Your task to perform on an android device: Go to wifi settings Image 0: 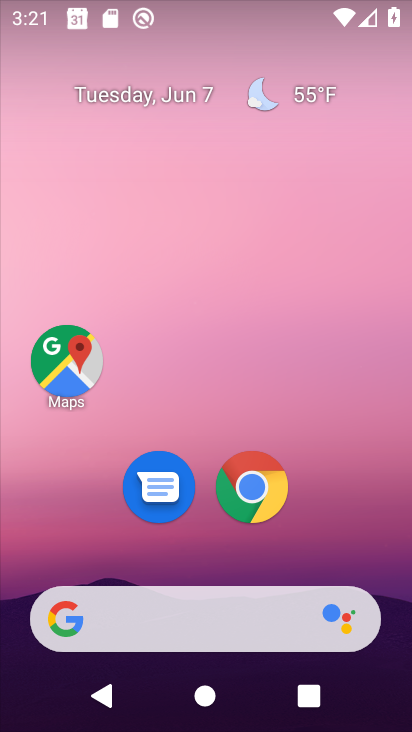
Step 0: drag from (335, 527) to (313, 64)
Your task to perform on an android device: Go to wifi settings Image 1: 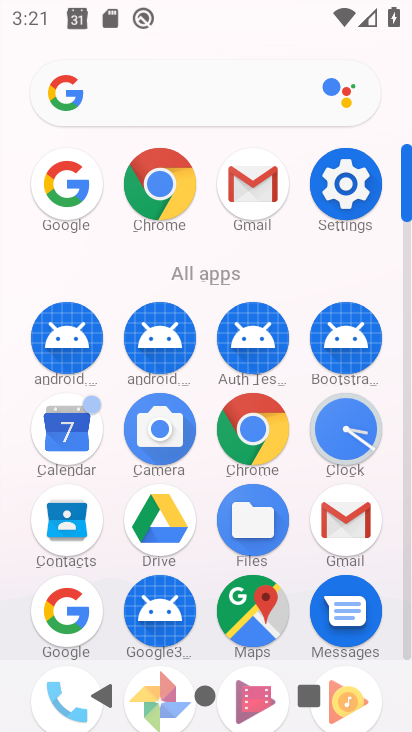
Step 1: click (344, 180)
Your task to perform on an android device: Go to wifi settings Image 2: 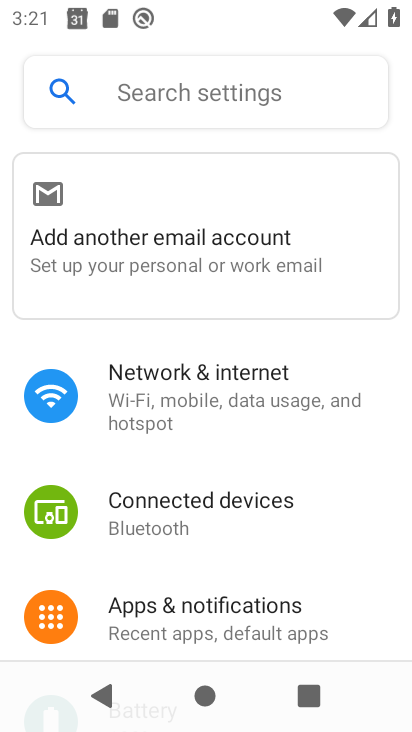
Step 2: drag from (196, 302) to (220, 353)
Your task to perform on an android device: Go to wifi settings Image 3: 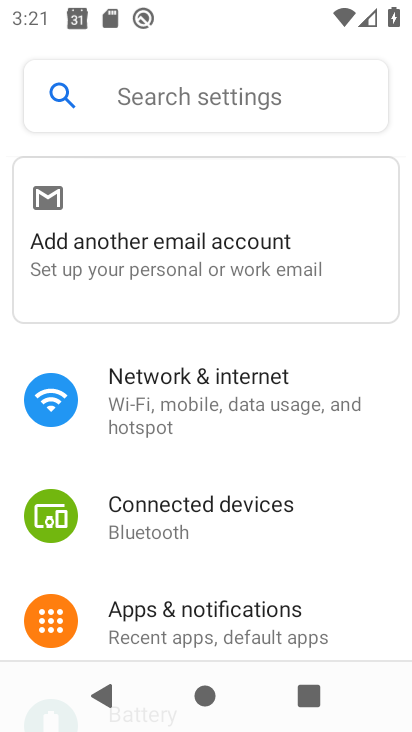
Step 3: click (229, 395)
Your task to perform on an android device: Go to wifi settings Image 4: 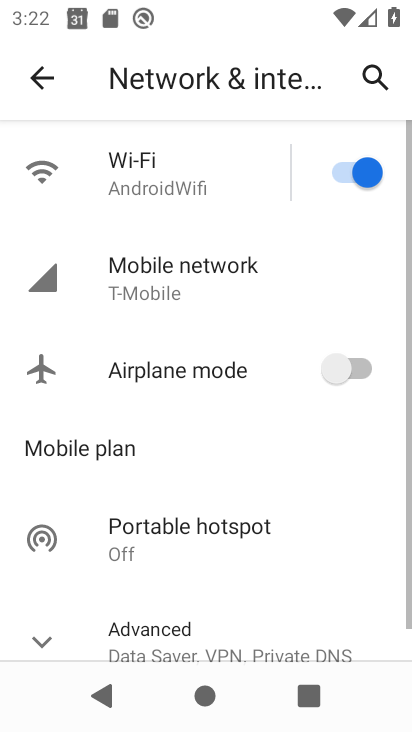
Step 4: click (157, 172)
Your task to perform on an android device: Go to wifi settings Image 5: 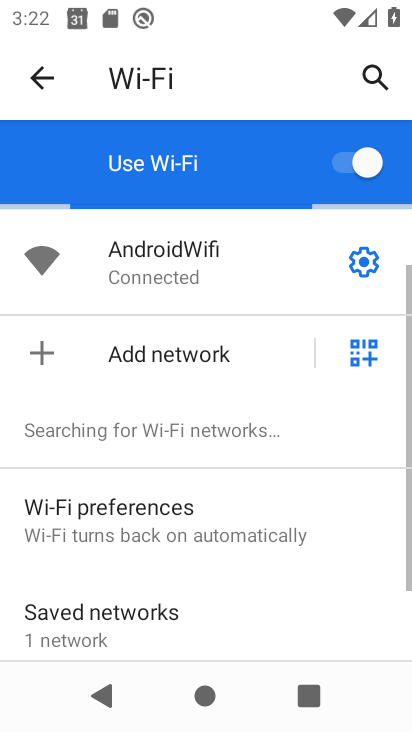
Step 5: click (204, 259)
Your task to perform on an android device: Go to wifi settings Image 6: 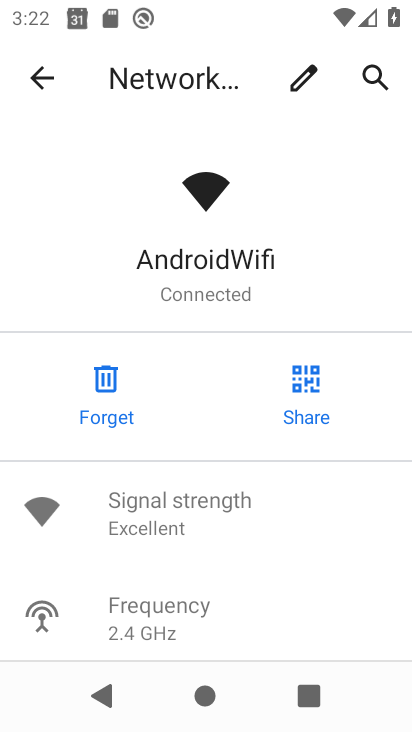
Step 6: task complete